Your task to perform on an android device: turn pop-ups off in chrome Image 0: 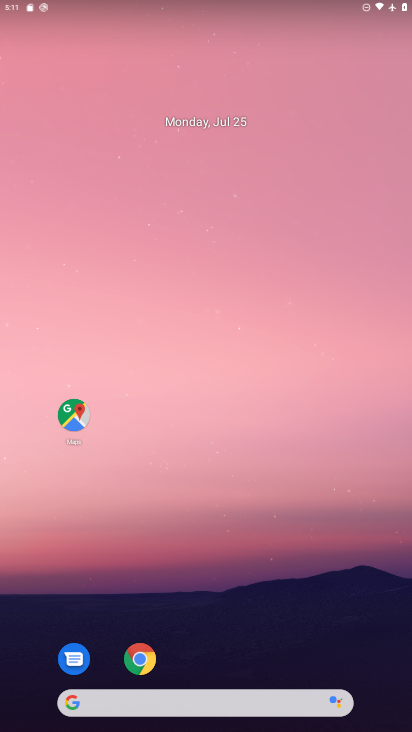
Step 0: drag from (257, 659) to (195, 140)
Your task to perform on an android device: turn pop-ups off in chrome Image 1: 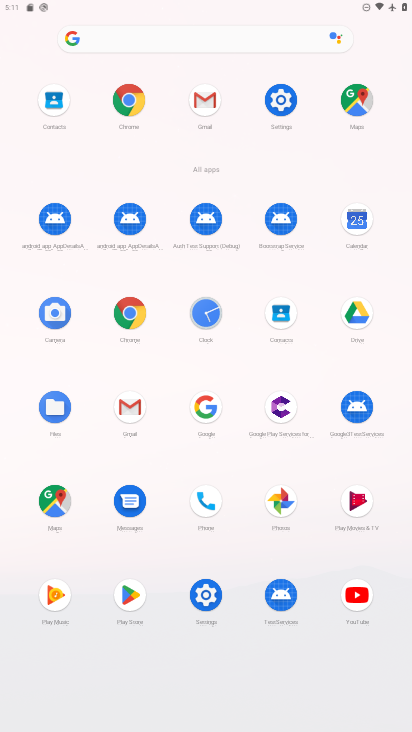
Step 1: click (124, 100)
Your task to perform on an android device: turn pop-ups off in chrome Image 2: 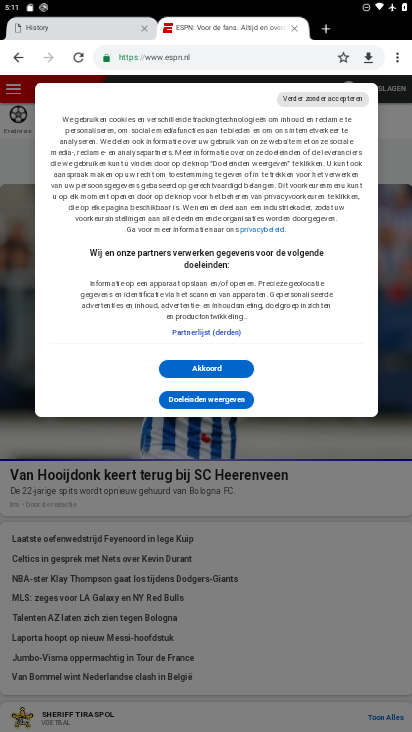
Step 2: click (402, 55)
Your task to perform on an android device: turn pop-ups off in chrome Image 3: 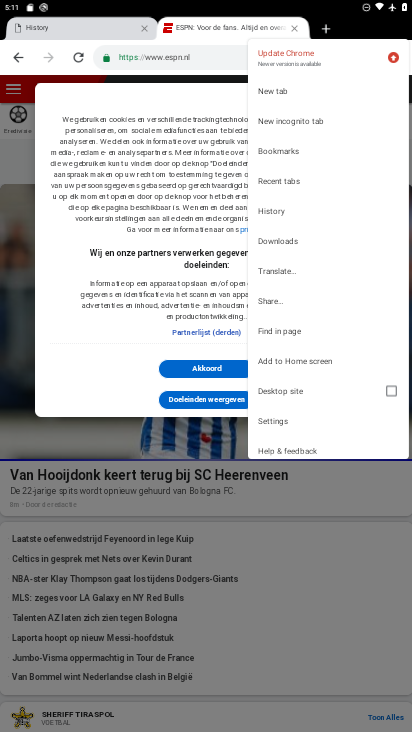
Step 3: click (298, 417)
Your task to perform on an android device: turn pop-ups off in chrome Image 4: 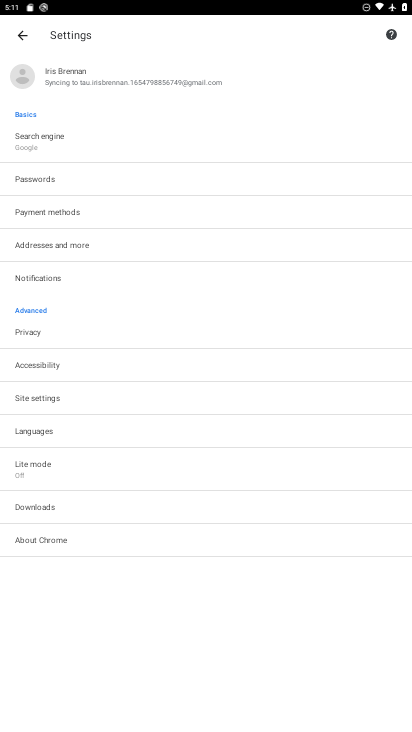
Step 4: click (184, 403)
Your task to perform on an android device: turn pop-ups off in chrome Image 5: 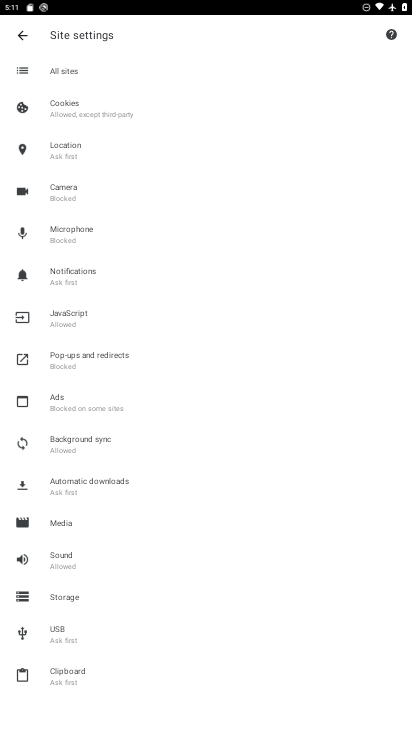
Step 5: click (145, 359)
Your task to perform on an android device: turn pop-ups off in chrome Image 6: 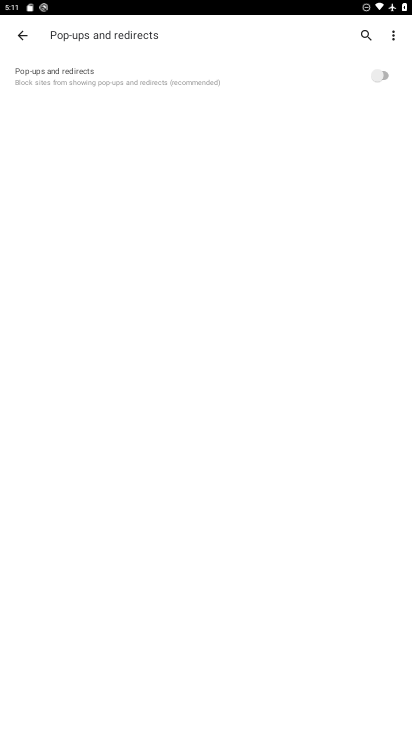
Step 6: task complete